Your task to perform on an android device: Open Chrome and go to settings Image 0: 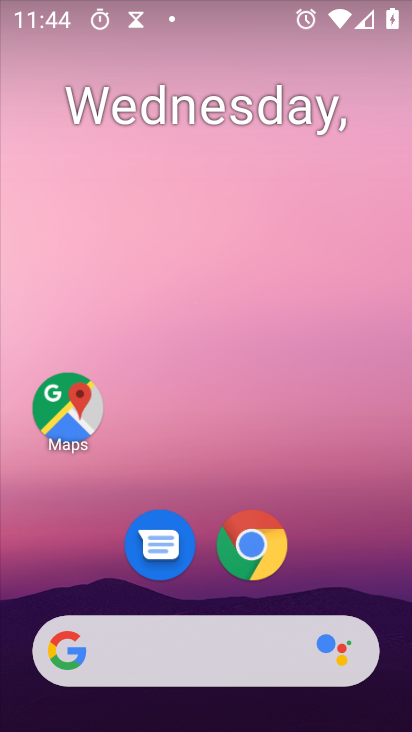
Step 0: press home button
Your task to perform on an android device: Open Chrome and go to settings Image 1: 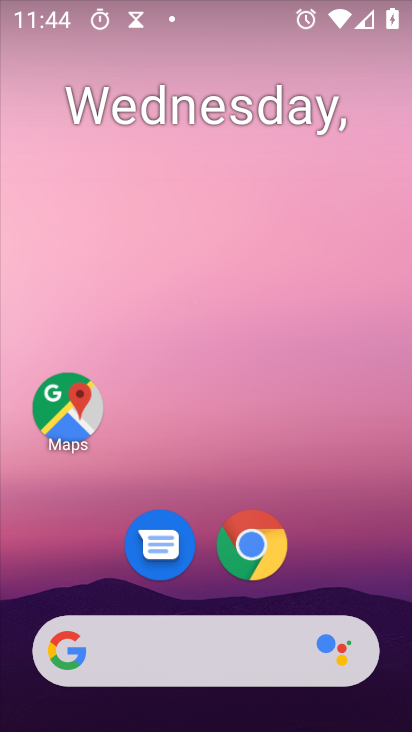
Step 1: click (260, 550)
Your task to perform on an android device: Open Chrome and go to settings Image 2: 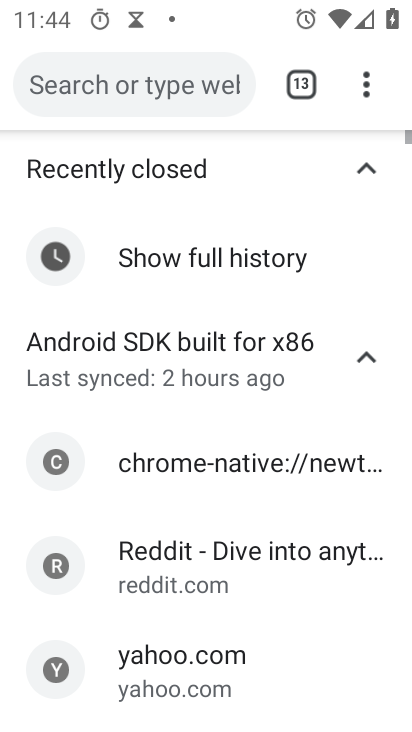
Step 2: task complete